Your task to perform on an android device: check battery use Image 0: 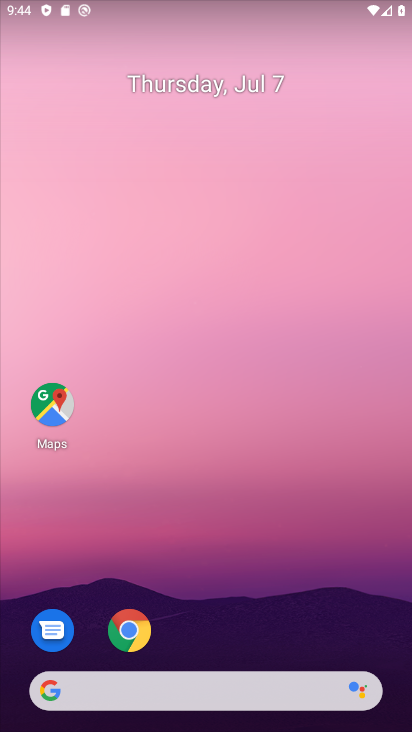
Step 0: press home button
Your task to perform on an android device: check battery use Image 1: 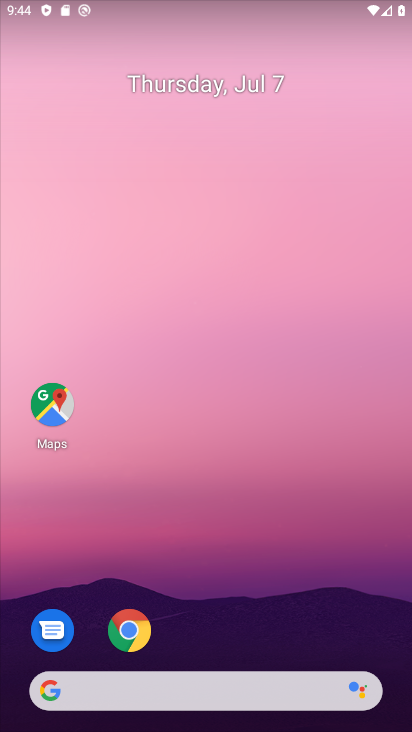
Step 1: drag from (209, 648) to (214, 24)
Your task to perform on an android device: check battery use Image 2: 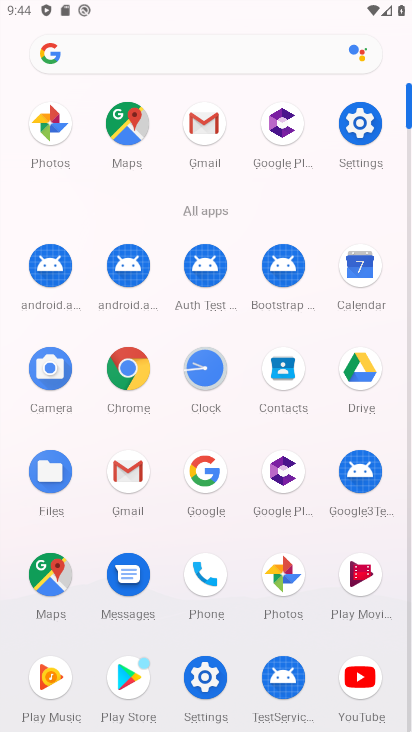
Step 2: click (358, 119)
Your task to perform on an android device: check battery use Image 3: 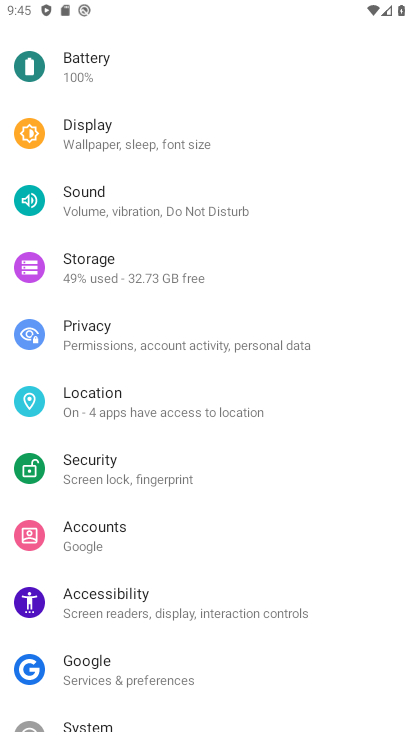
Step 3: click (105, 69)
Your task to perform on an android device: check battery use Image 4: 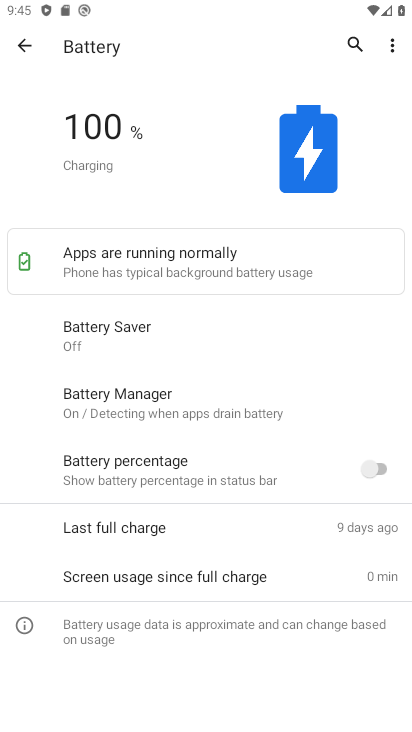
Step 4: click (390, 41)
Your task to perform on an android device: check battery use Image 5: 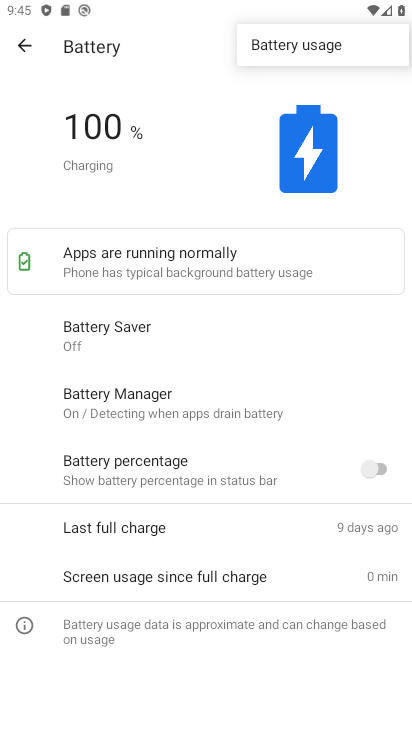
Step 5: click (296, 41)
Your task to perform on an android device: check battery use Image 6: 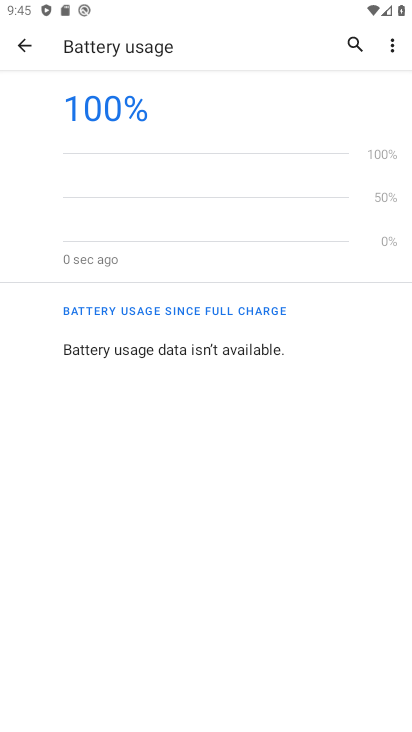
Step 6: task complete